Your task to perform on an android device: Open calendar and show me the third week of next month Image 0: 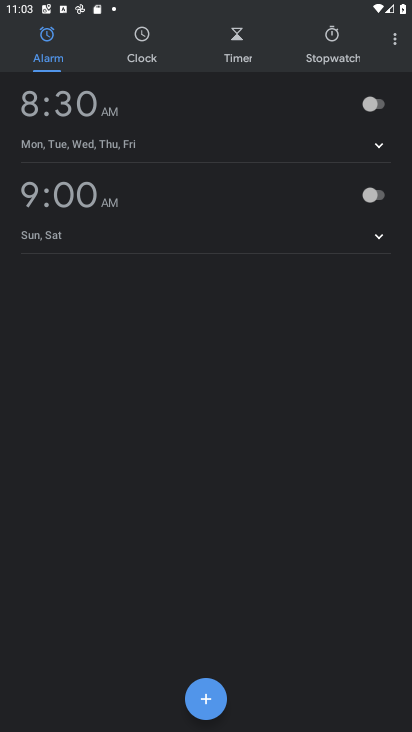
Step 0: press home button
Your task to perform on an android device: Open calendar and show me the third week of next month Image 1: 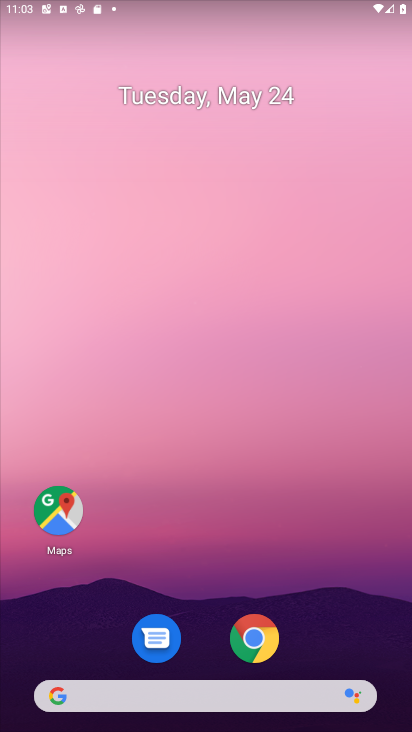
Step 1: drag from (91, 695) to (206, 187)
Your task to perform on an android device: Open calendar and show me the third week of next month Image 2: 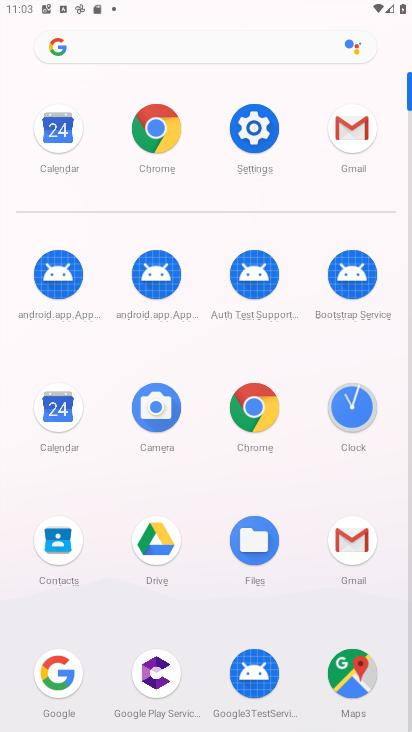
Step 2: click (67, 417)
Your task to perform on an android device: Open calendar and show me the third week of next month Image 3: 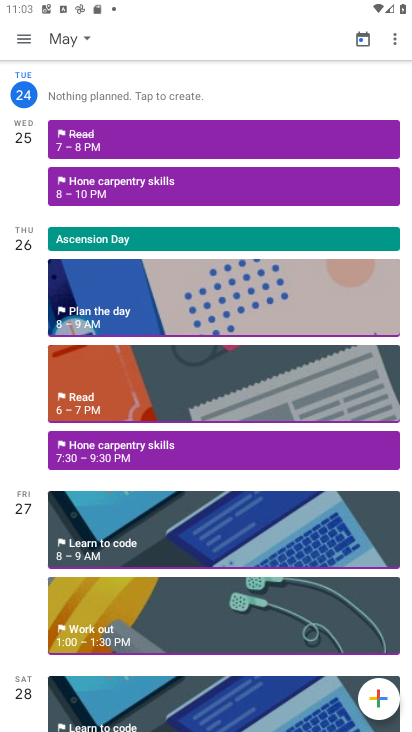
Step 3: click (75, 39)
Your task to perform on an android device: Open calendar and show me the third week of next month Image 4: 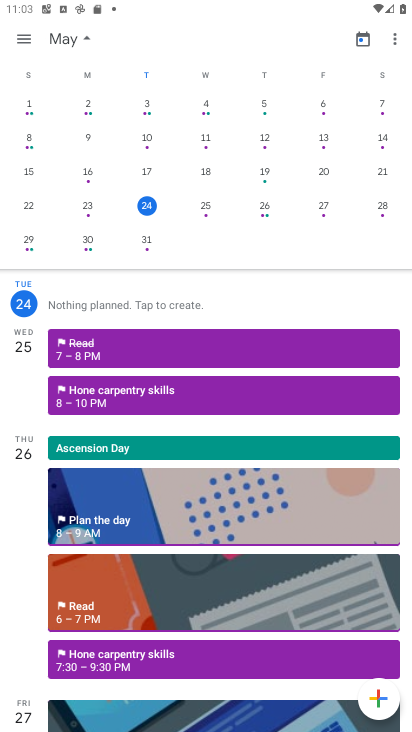
Step 4: drag from (309, 191) to (2, 197)
Your task to perform on an android device: Open calendar and show me the third week of next month Image 5: 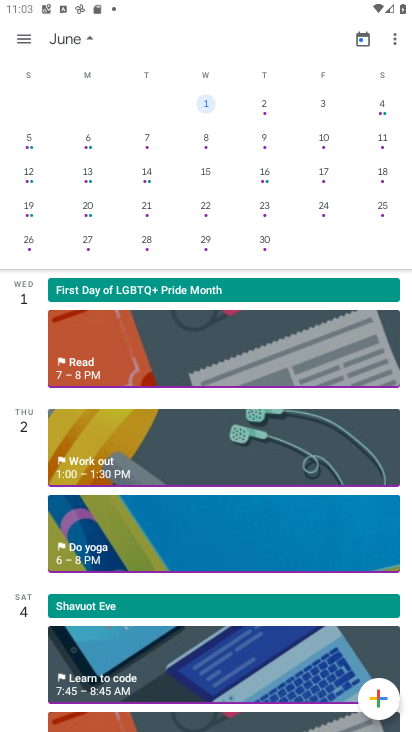
Step 5: click (31, 174)
Your task to perform on an android device: Open calendar and show me the third week of next month Image 6: 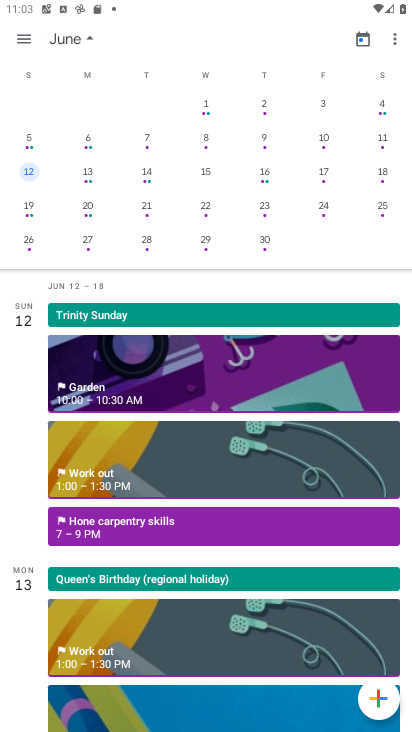
Step 6: task complete